Your task to perform on an android device: turn on notifications settings in the gmail app Image 0: 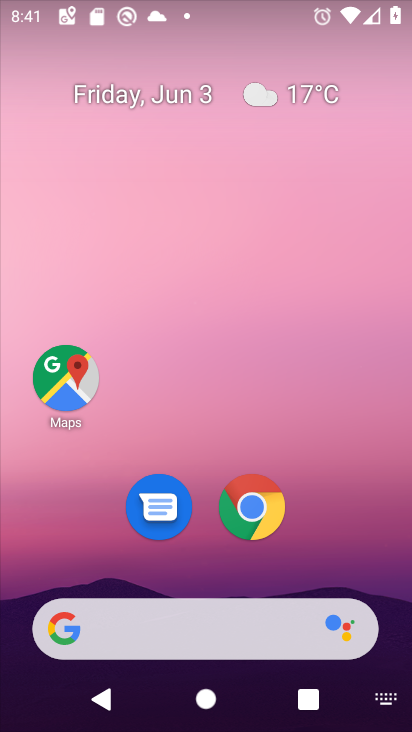
Step 0: drag from (354, 556) to (228, 33)
Your task to perform on an android device: turn on notifications settings in the gmail app Image 1: 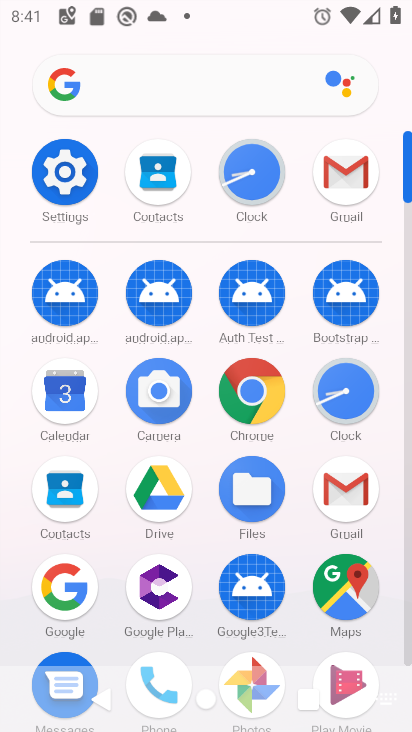
Step 1: click (346, 478)
Your task to perform on an android device: turn on notifications settings in the gmail app Image 2: 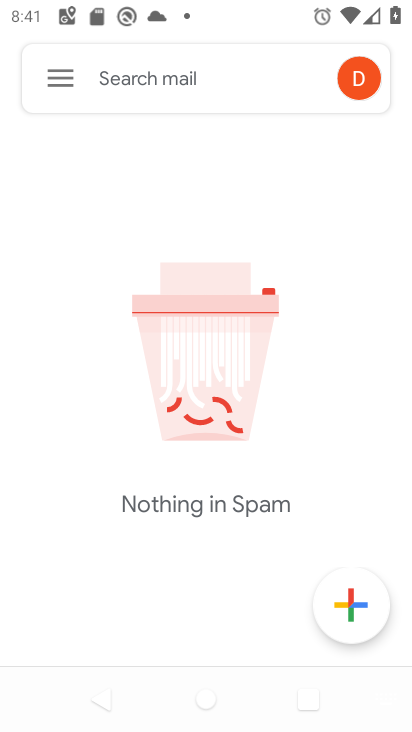
Step 2: press home button
Your task to perform on an android device: turn on notifications settings in the gmail app Image 3: 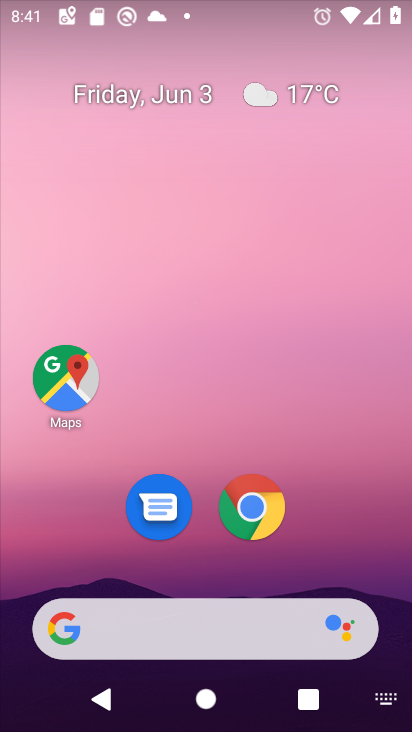
Step 3: drag from (298, 425) to (232, 1)
Your task to perform on an android device: turn on notifications settings in the gmail app Image 4: 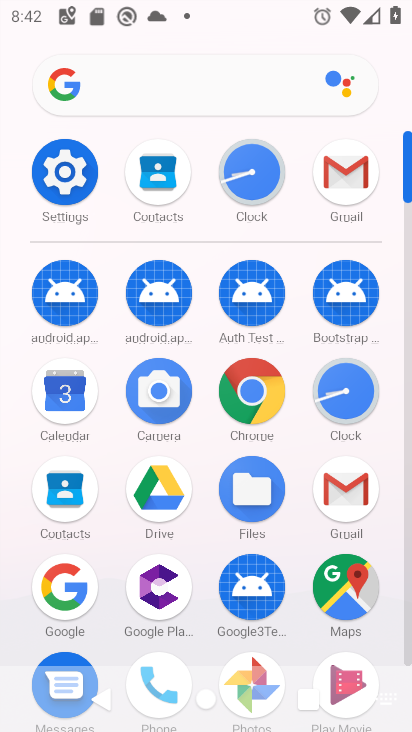
Step 4: click (354, 486)
Your task to perform on an android device: turn on notifications settings in the gmail app Image 5: 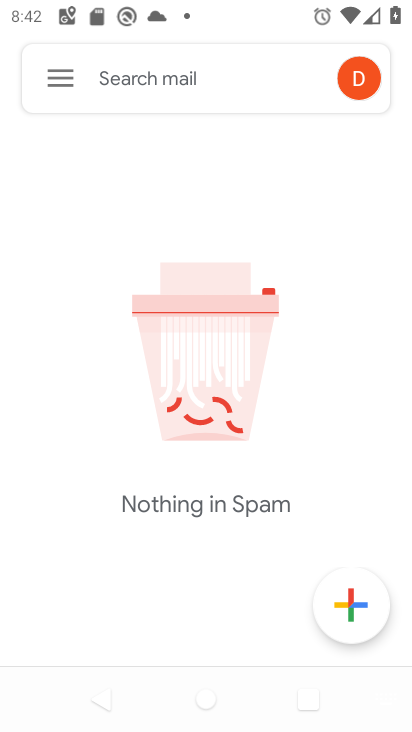
Step 5: click (58, 64)
Your task to perform on an android device: turn on notifications settings in the gmail app Image 6: 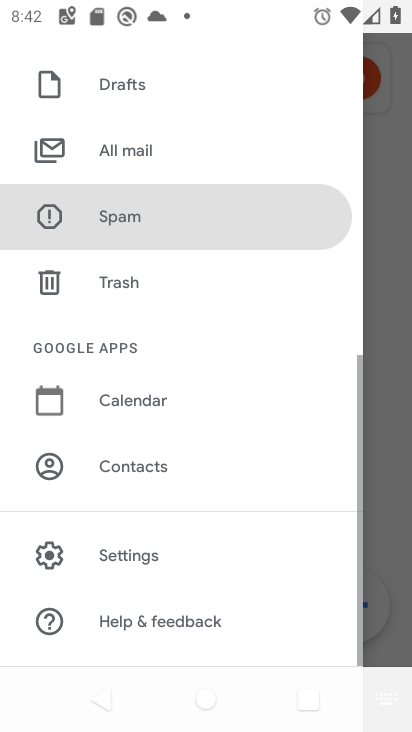
Step 6: drag from (206, 459) to (198, 55)
Your task to perform on an android device: turn on notifications settings in the gmail app Image 7: 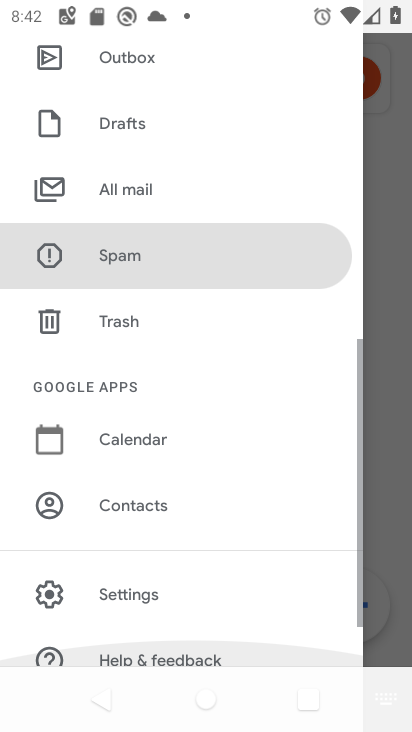
Step 7: click (161, 550)
Your task to perform on an android device: turn on notifications settings in the gmail app Image 8: 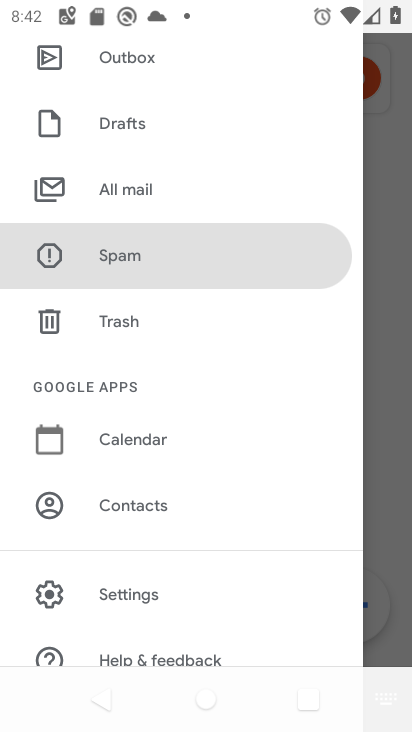
Step 8: click (185, 587)
Your task to perform on an android device: turn on notifications settings in the gmail app Image 9: 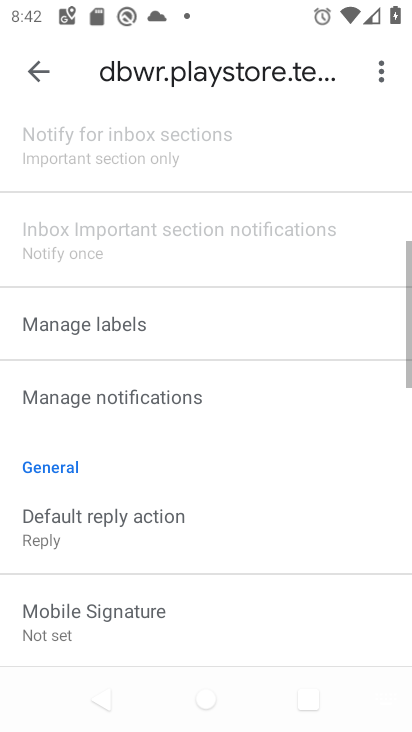
Step 9: click (223, 396)
Your task to perform on an android device: turn on notifications settings in the gmail app Image 10: 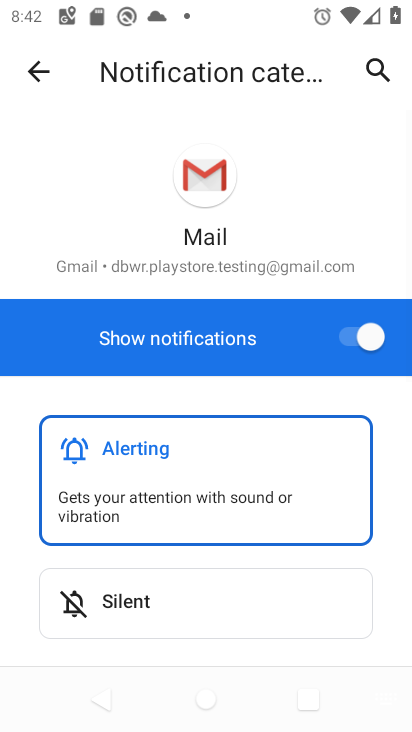
Step 10: task complete